Your task to perform on an android device: How much does a 2 bedroom apartment rent for in Washington DC? Image 0: 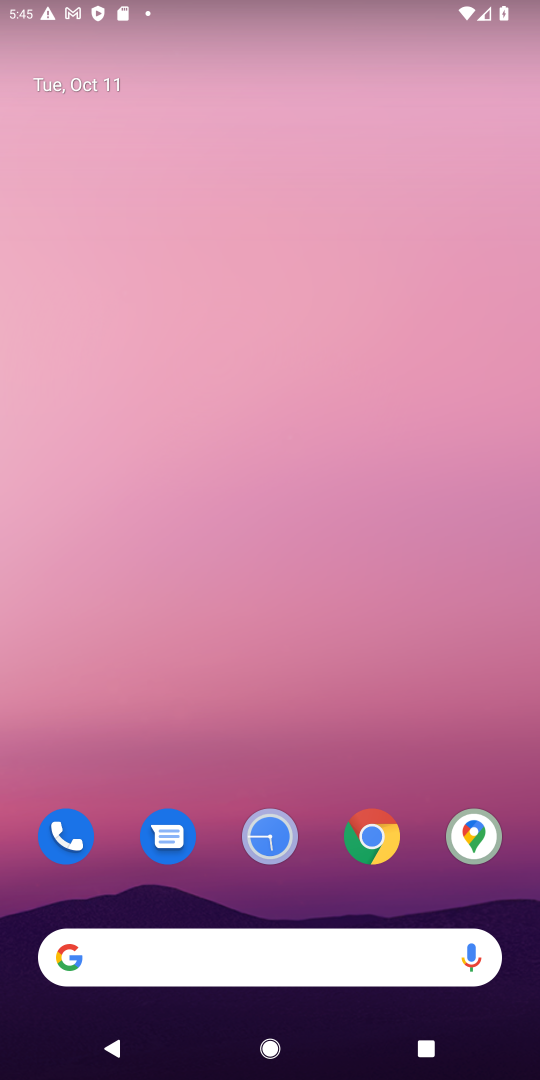
Step 0: click (367, 836)
Your task to perform on an android device: How much does a 2 bedroom apartment rent for in Washington DC? Image 1: 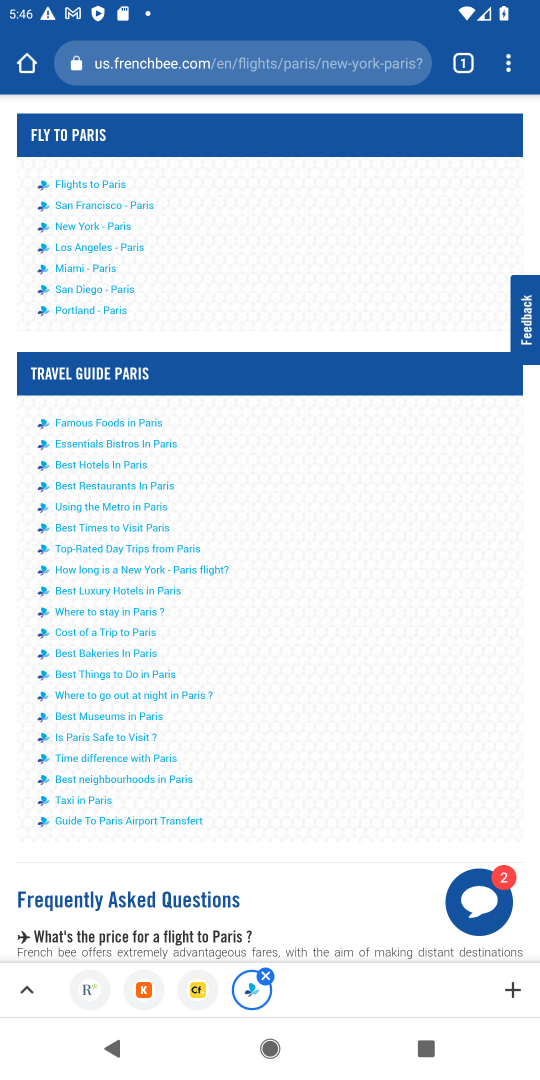
Step 1: click (228, 45)
Your task to perform on an android device: How much does a 2 bedroom apartment rent for in Washington DC? Image 2: 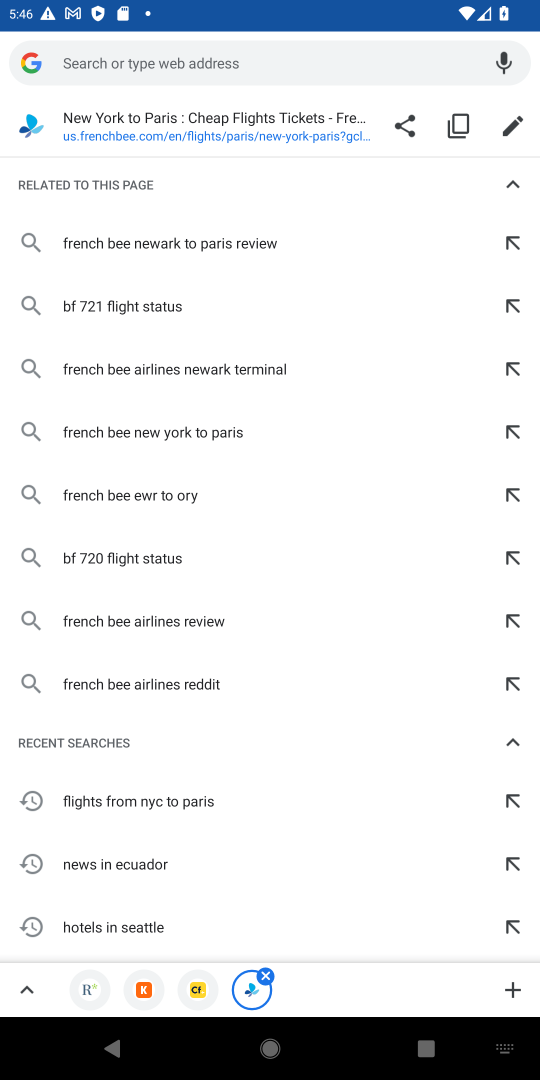
Step 2: type "2 bedroom apartment rent for in Washington DC?"
Your task to perform on an android device: How much does a 2 bedroom apartment rent for in Washington DC? Image 3: 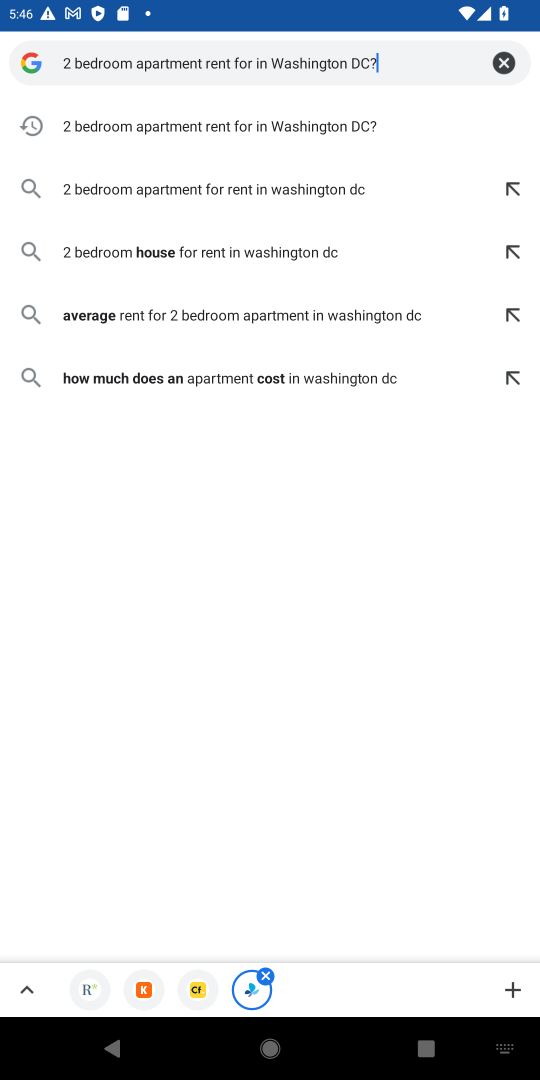
Step 3: click (134, 131)
Your task to perform on an android device: How much does a 2 bedroom apartment rent for in Washington DC? Image 4: 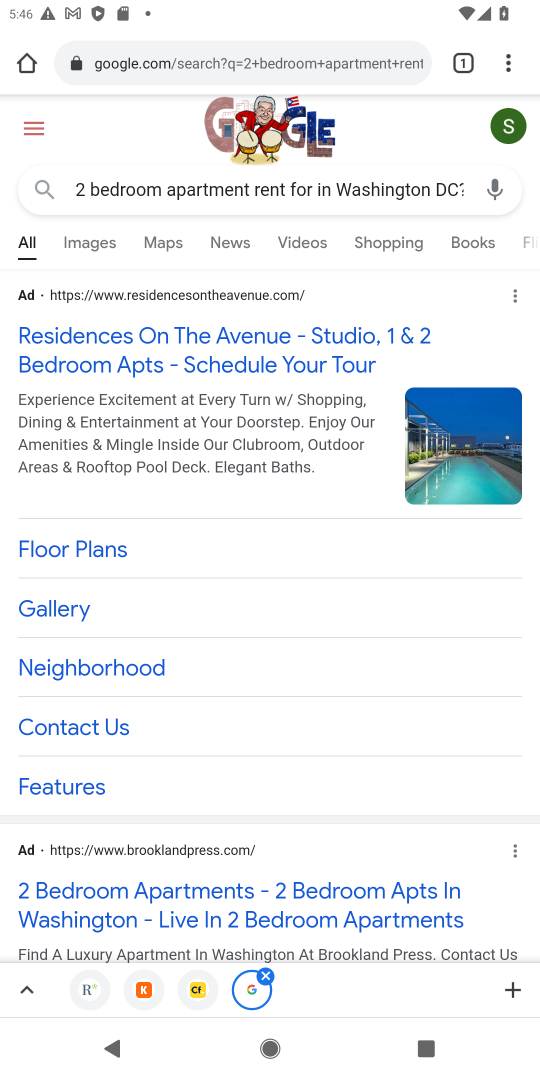
Step 4: drag from (268, 802) to (249, 270)
Your task to perform on an android device: How much does a 2 bedroom apartment rent for in Washington DC? Image 5: 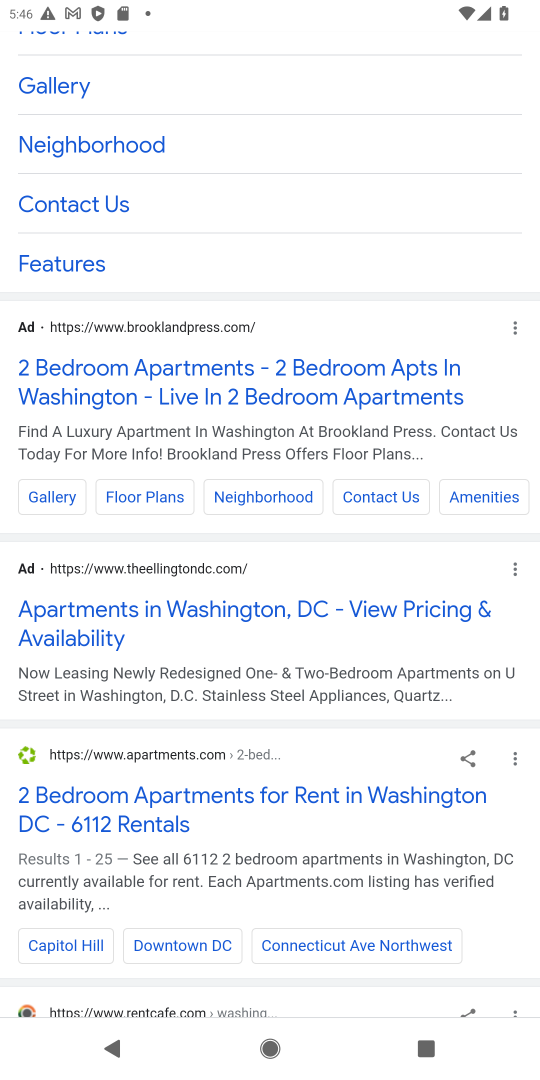
Step 5: click (83, 383)
Your task to perform on an android device: How much does a 2 bedroom apartment rent for in Washington DC? Image 6: 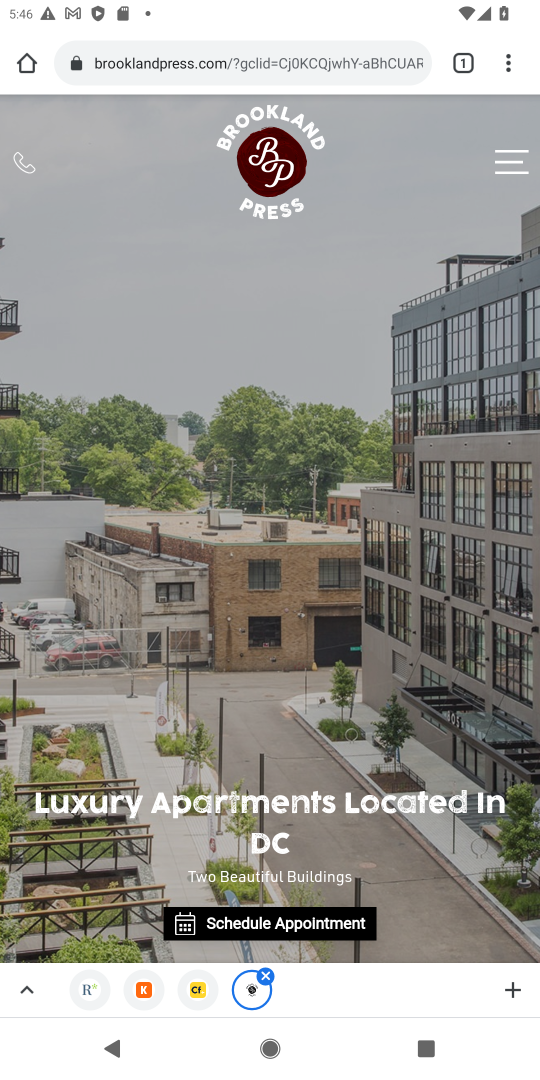
Step 6: task complete